Your task to perform on an android device: Open ESPN.com Image 0: 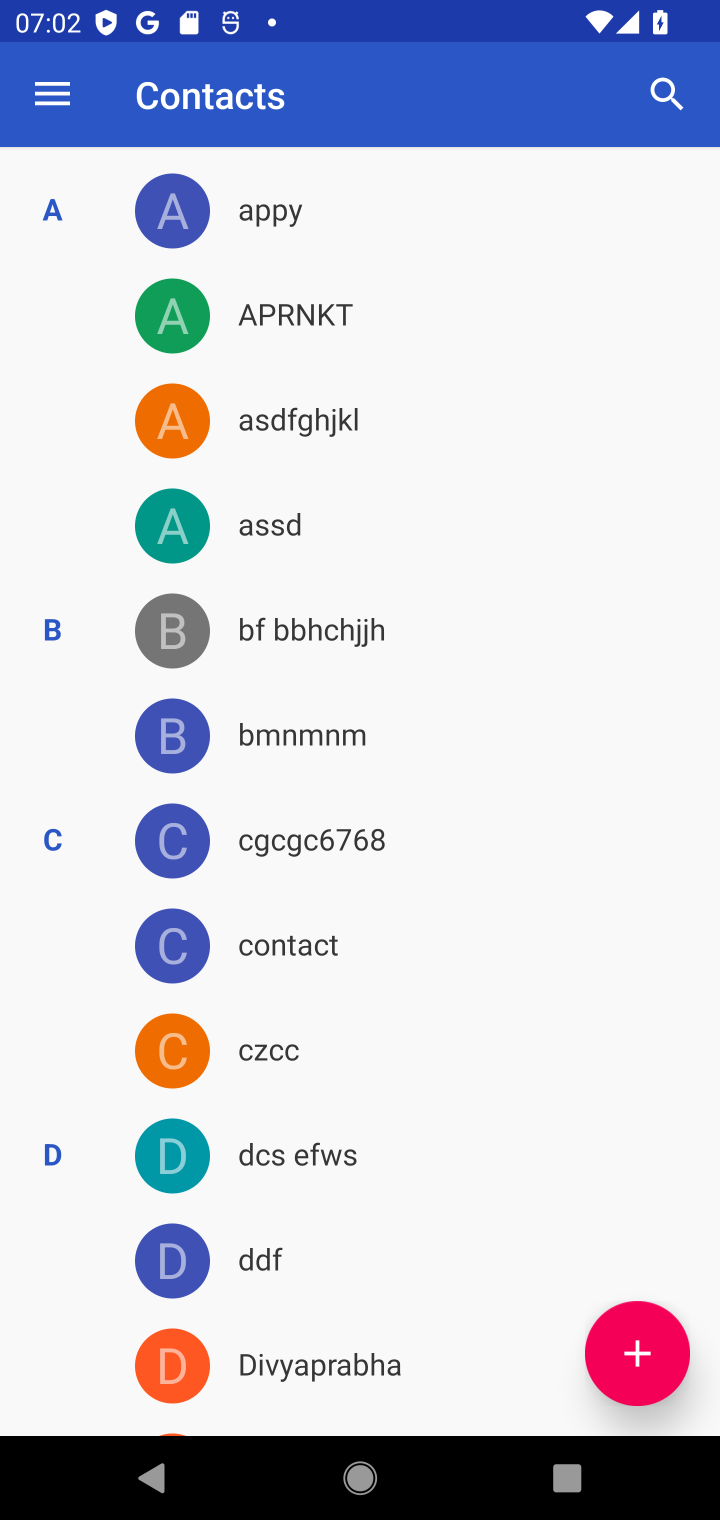
Step 0: press home button
Your task to perform on an android device: Open ESPN.com Image 1: 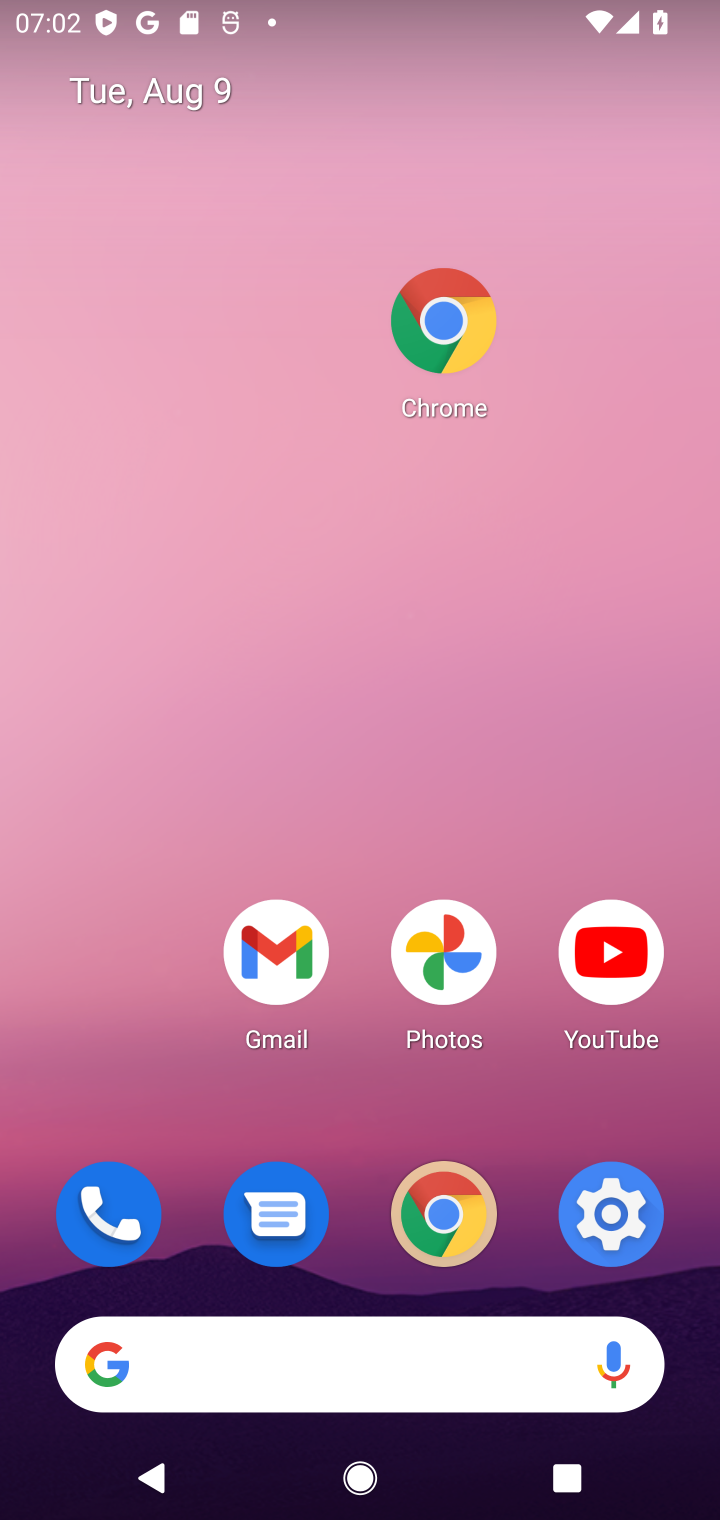
Step 1: click (444, 1211)
Your task to perform on an android device: Open ESPN.com Image 2: 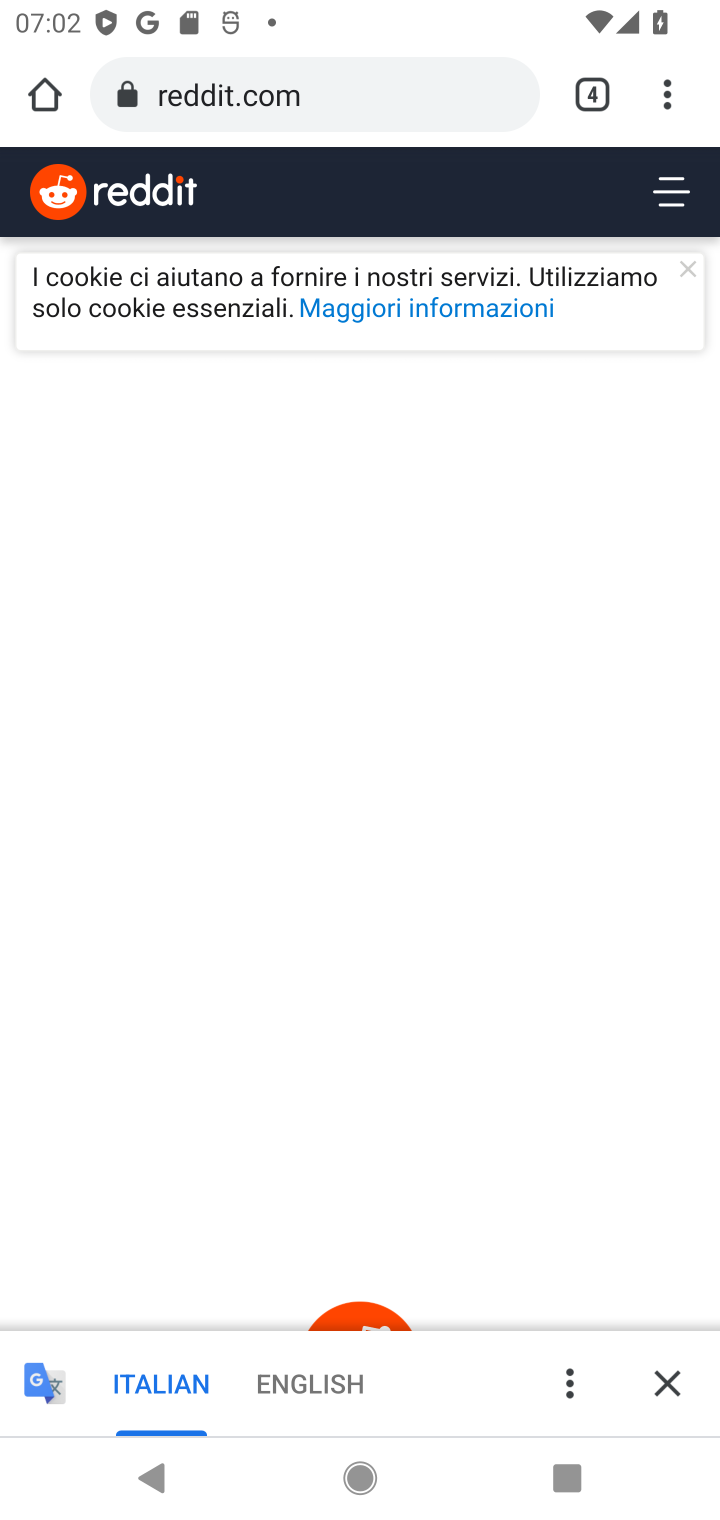
Step 2: click (411, 91)
Your task to perform on an android device: Open ESPN.com Image 3: 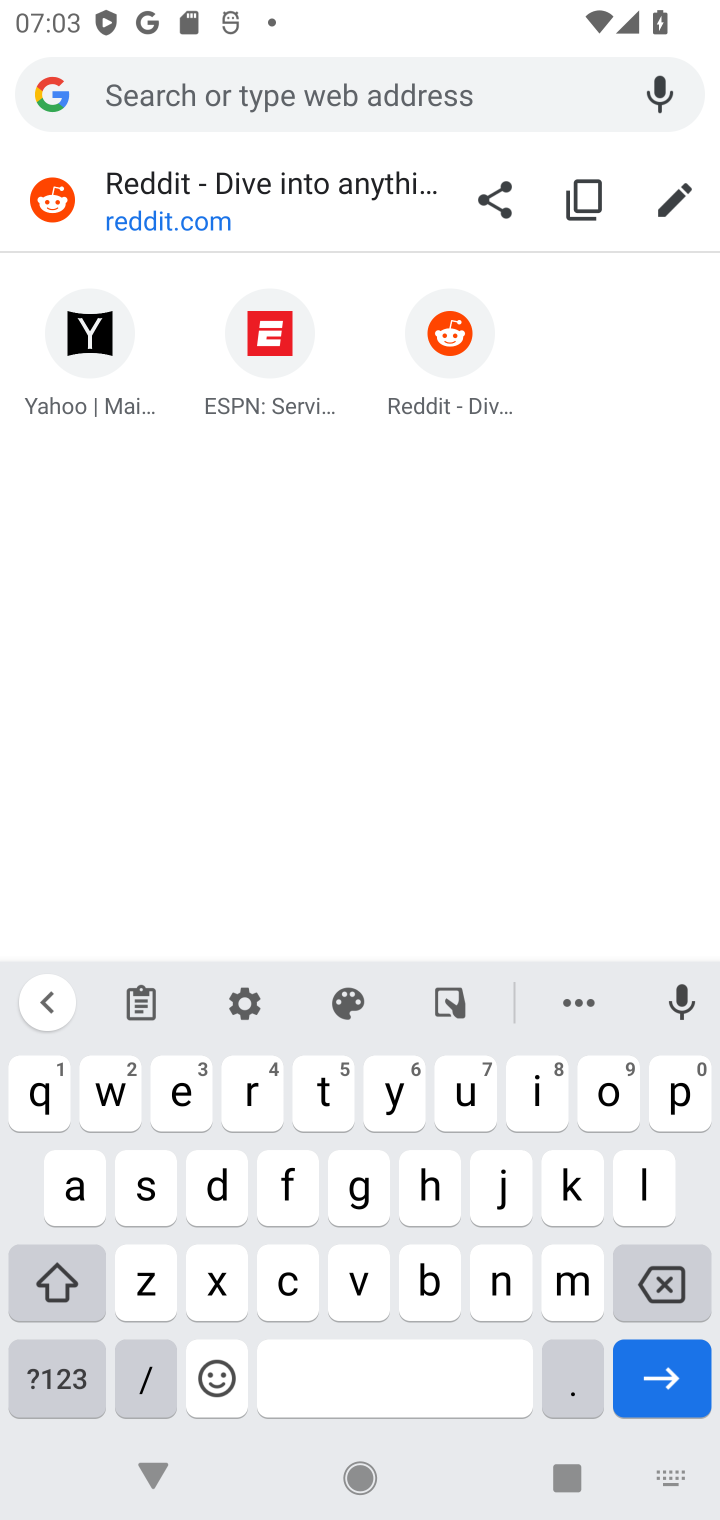
Step 3: click (169, 1093)
Your task to perform on an android device: Open ESPN.com Image 4: 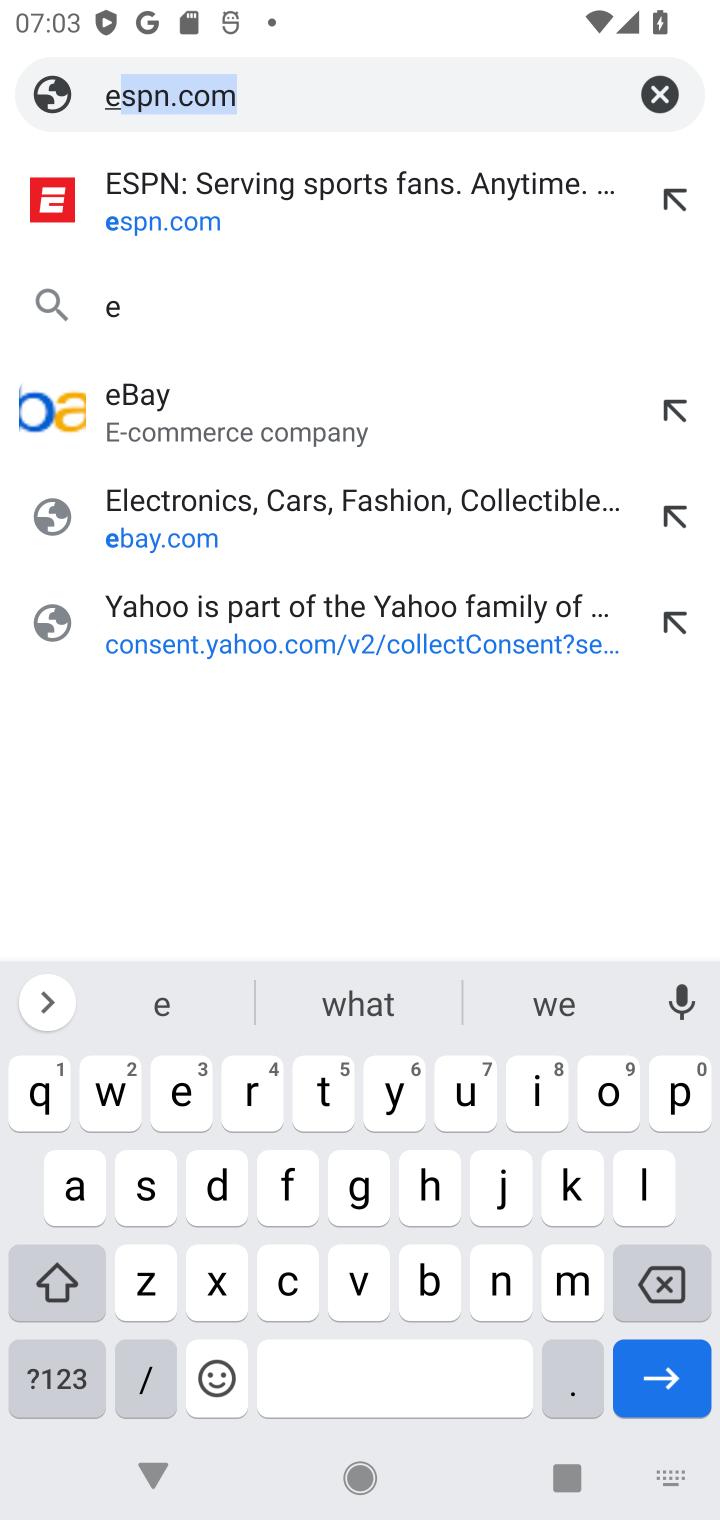
Step 4: click (342, 85)
Your task to perform on an android device: Open ESPN.com Image 5: 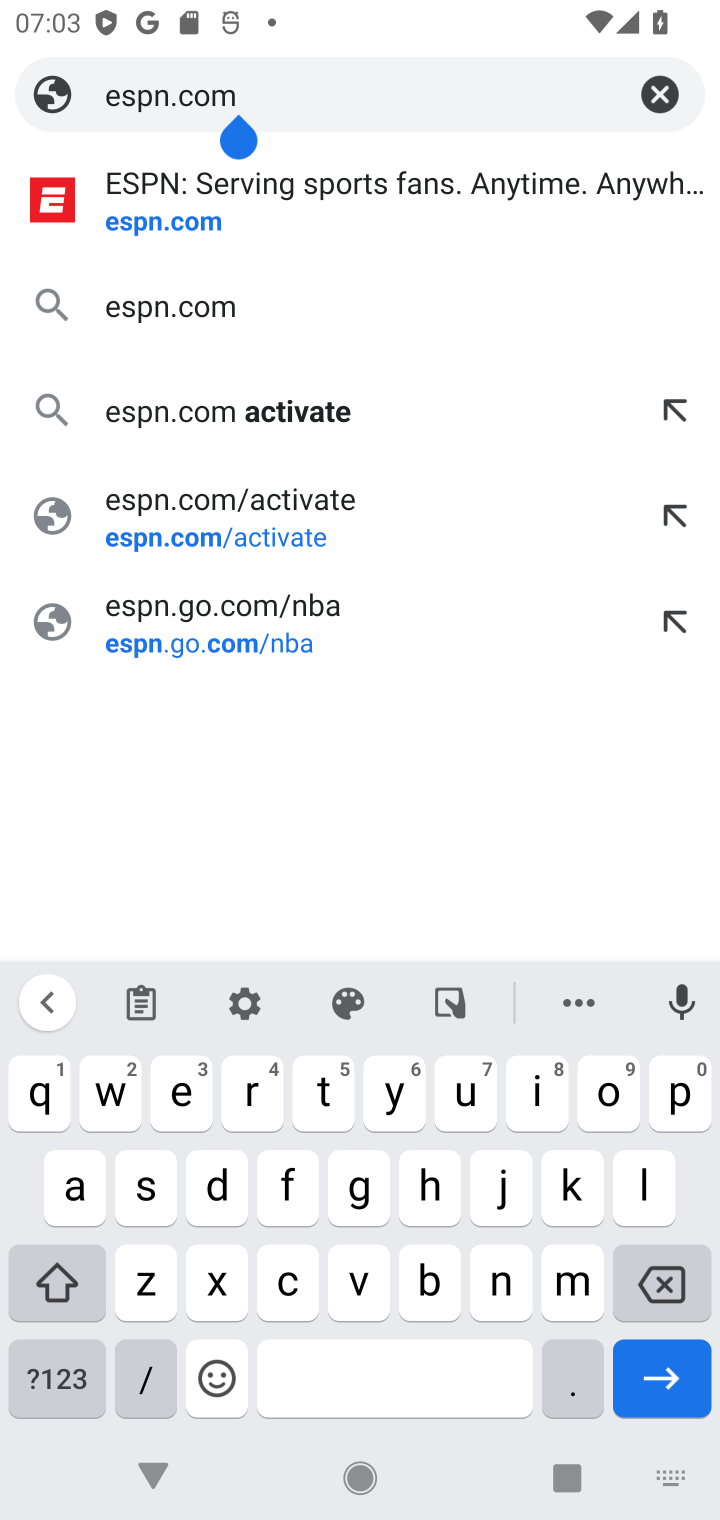
Step 5: click (662, 1368)
Your task to perform on an android device: Open ESPN.com Image 6: 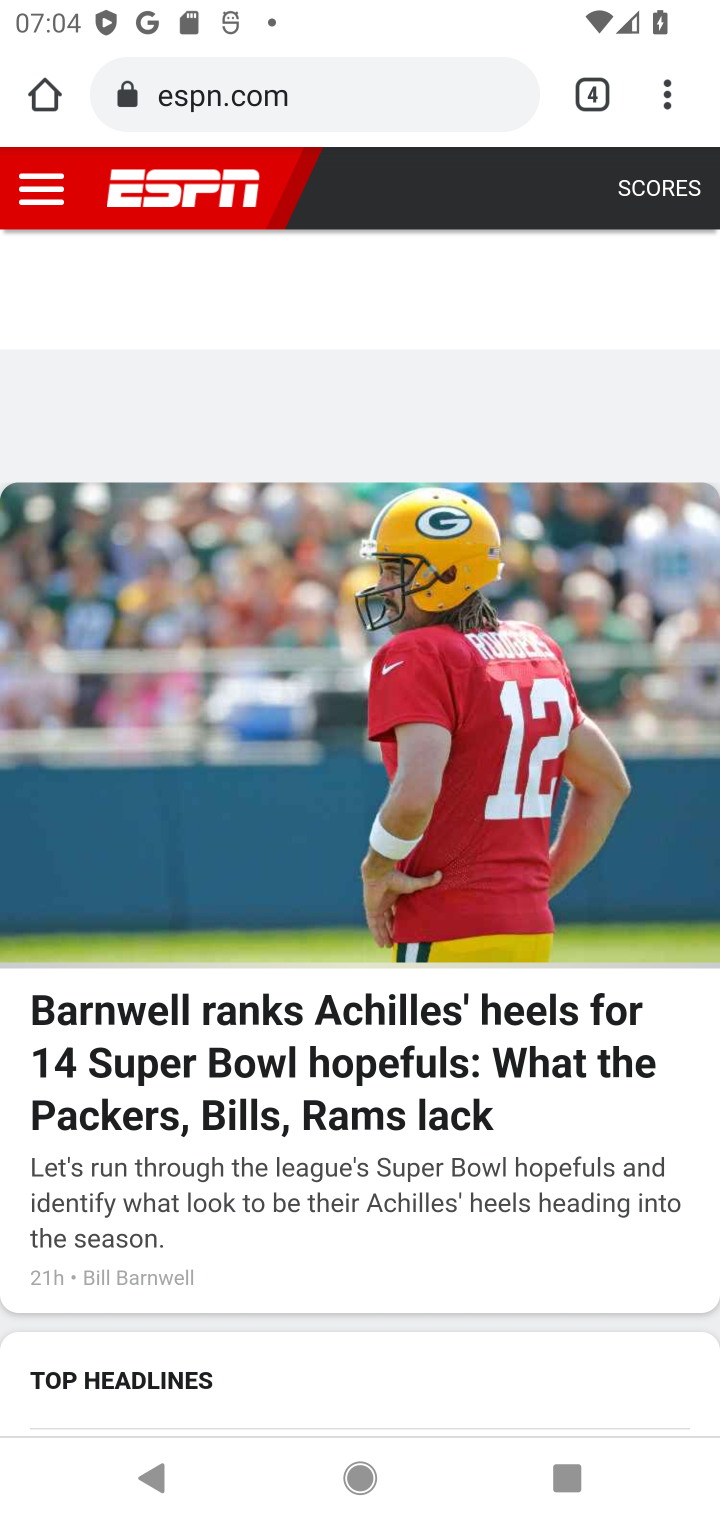
Step 6: task complete